Your task to perform on an android device: Go to Yahoo.com Image 0: 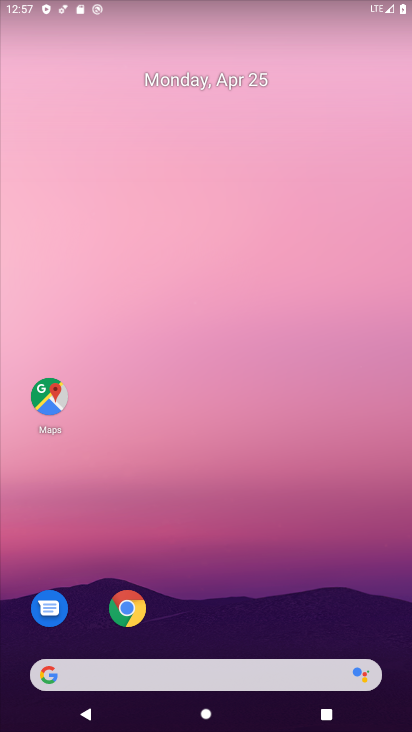
Step 0: drag from (254, 544) to (263, 145)
Your task to perform on an android device: Go to Yahoo.com Image 1: 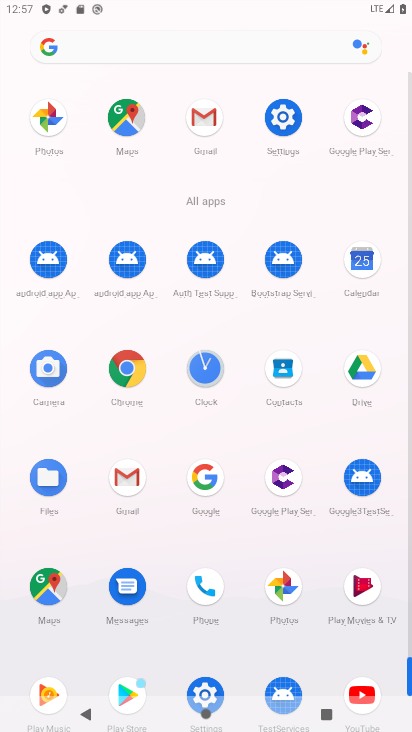
Step 1: click (131, 364)
Your task to perform on an android device: Go to Yahoo.com Image 2: 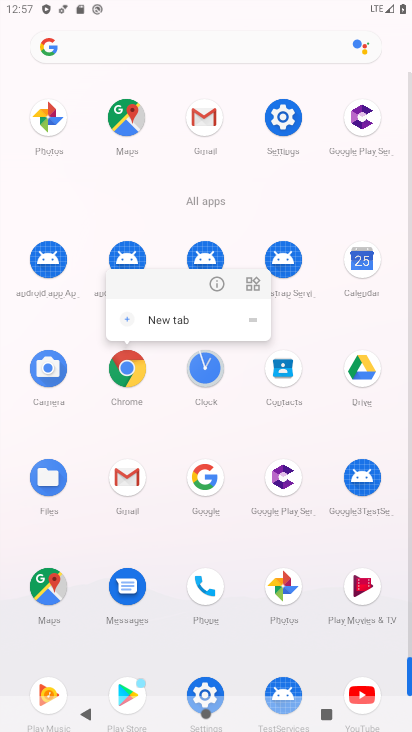
Step 2: click (131, 365)
Your task to perform on an android device: Go to Yahoo.com Image 3: 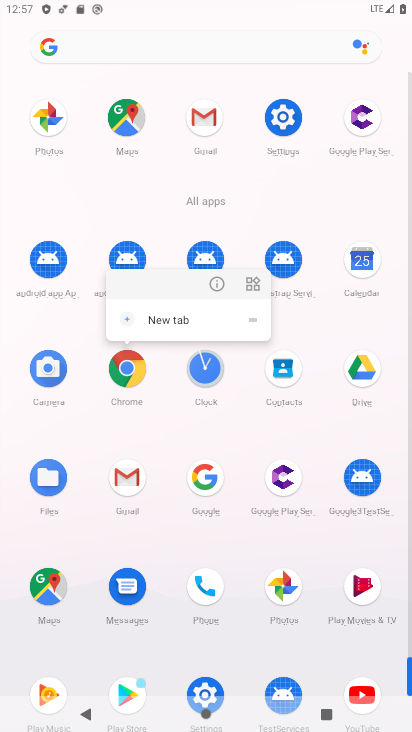
Step 3: click (131, 365)
Your task to perform on an android device: Go to Yahoo.com Image 4: 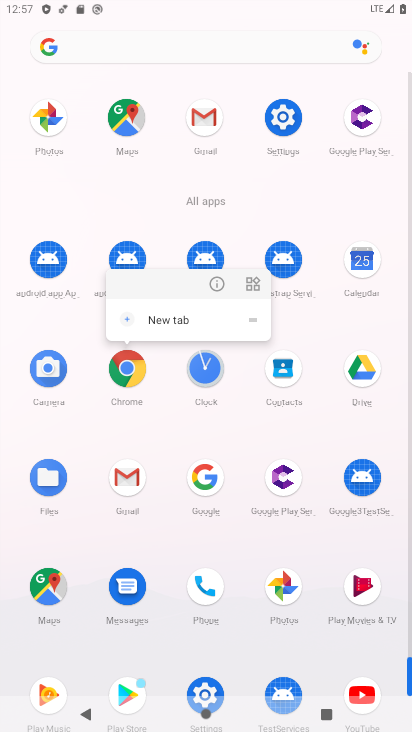
Step 4: click (131, 365)
Your task to perform on an android device: Go to Yahoo.com Image 5: 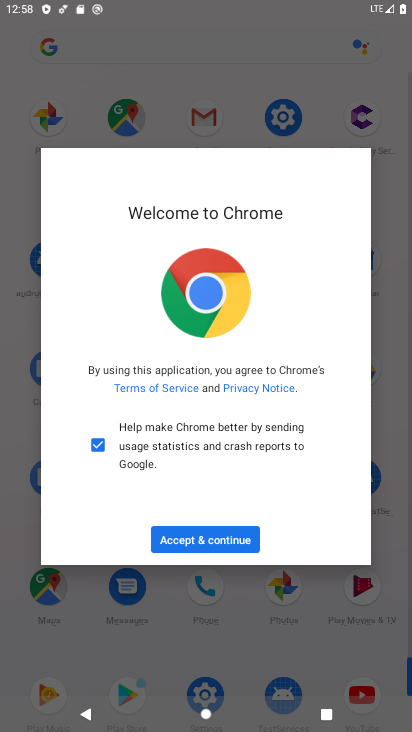
Step 5: click (242, 536)
Your task to perform on an android device: Go to Yahoo.com Image 6: 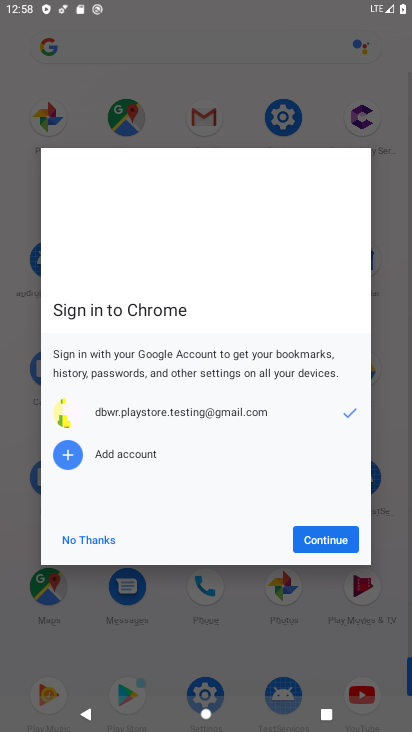
Step 6: click (344, 544)
Your task to perform on an android device: Go to Yahoo.com Image 7: 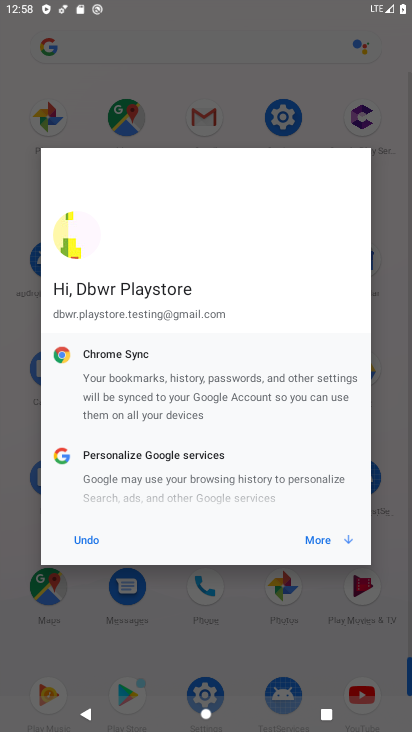
Step 7: click (340, 544)
Your task to perform on an android device: Go to Yahoo.com Image 8: 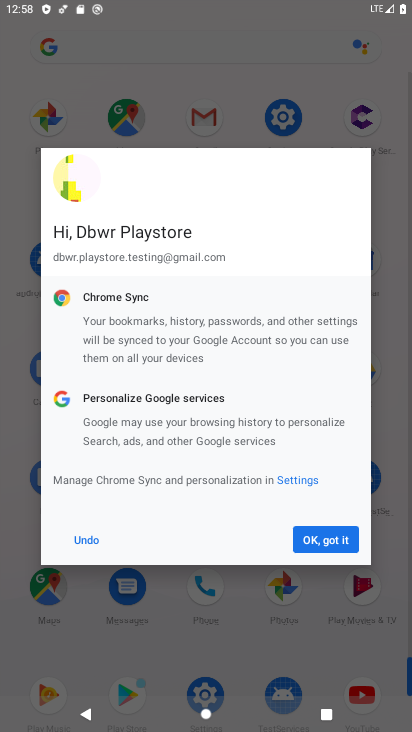
Step 8: click (340, 544)
Your task to perform on an android device: Go to Yahoo.com Image 9: 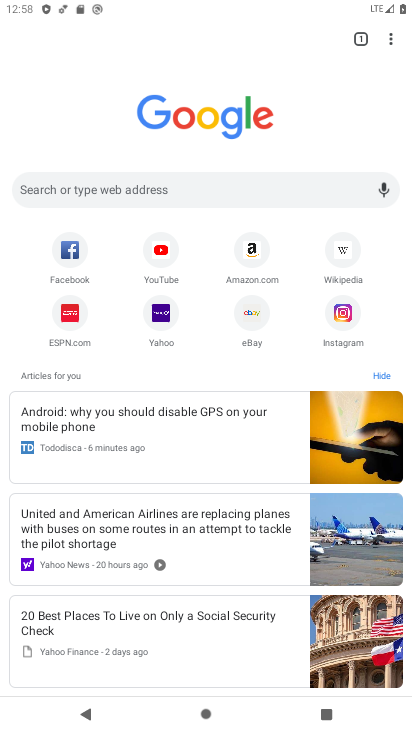
Step 9: click (164, 307)
Your task to perform on an android device: Go to Yahoo.com Image 10: 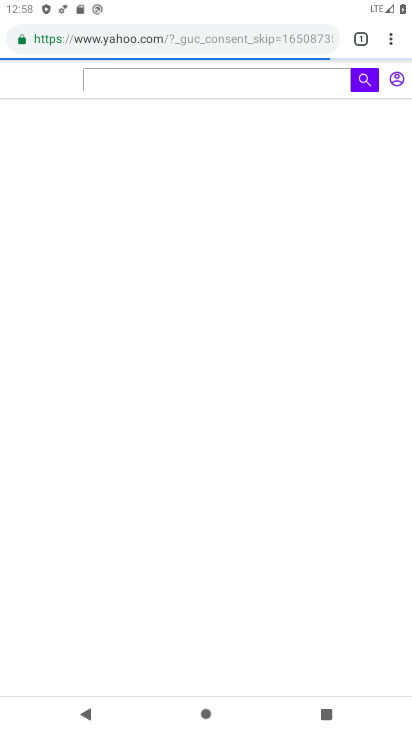
Step 10: task complete